Your task to perform on an android device: change notifications settings Image 0: 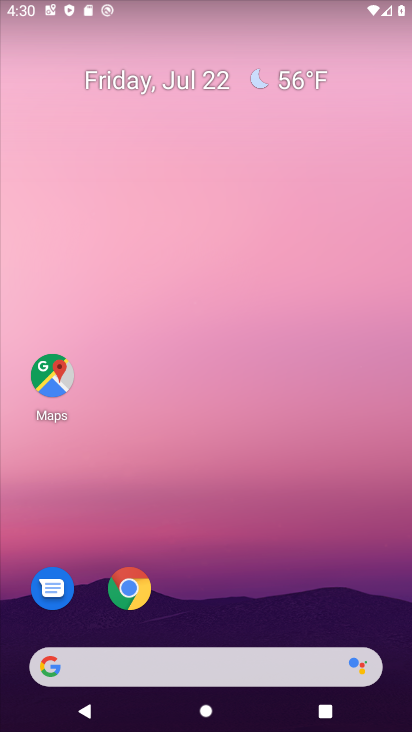
Step 0: drag from (216, 609) to (233, 195)
Your task to perform on an android device: change notifications settings Image 1: 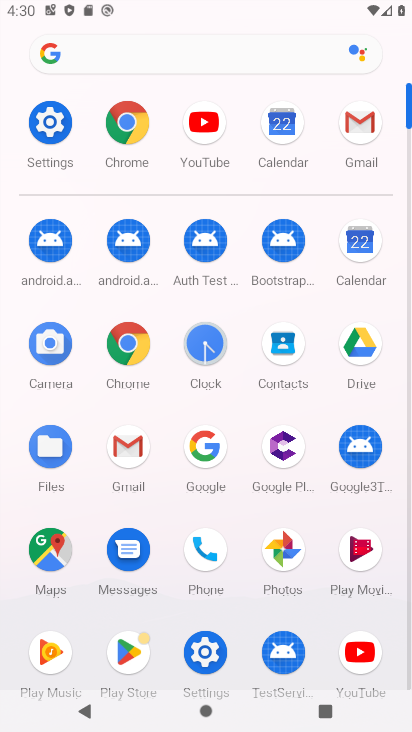
Step 1: click (57, 119)
Your task to perform on an android device: change notifications settings Image 2: 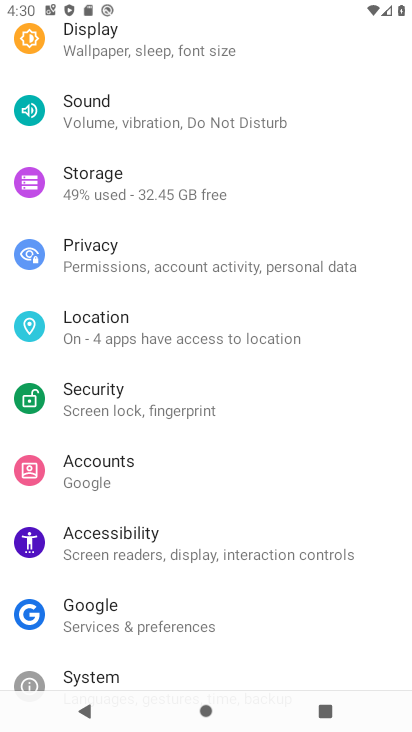
Step 2: drag from (194, 225) to (199, 423)
Your task to perform on an android device: change notifications settings Image 3: 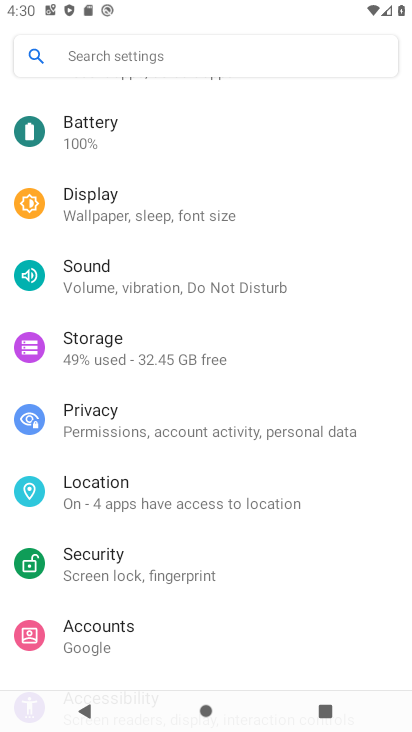
Step 3: drag from (199, 185) to (209, 395)
Your task to perform on an android device: change notifications settings Image 4: 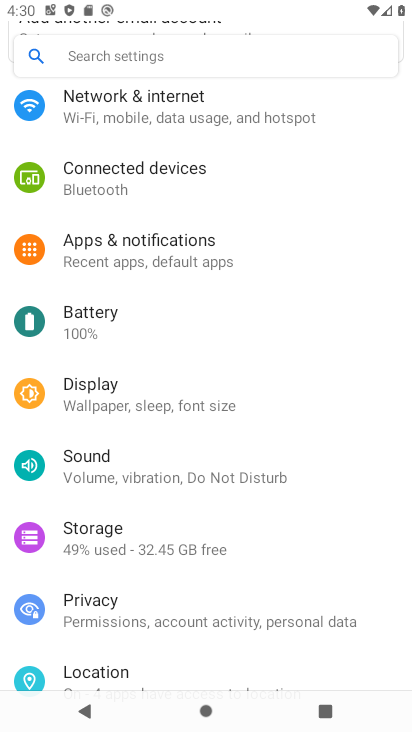
Step 4: click (190, 265)
Your task to perform on an android device: change notifications settings Image 5: 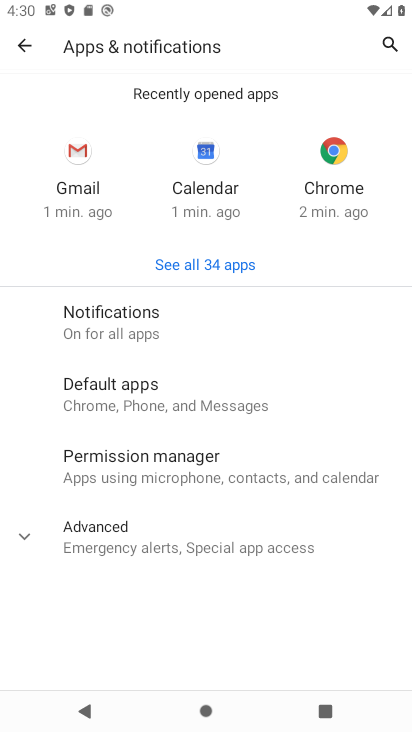
Step 5: click (213, 320)
Your task to perform on an android device: change notifications settings Image 6: 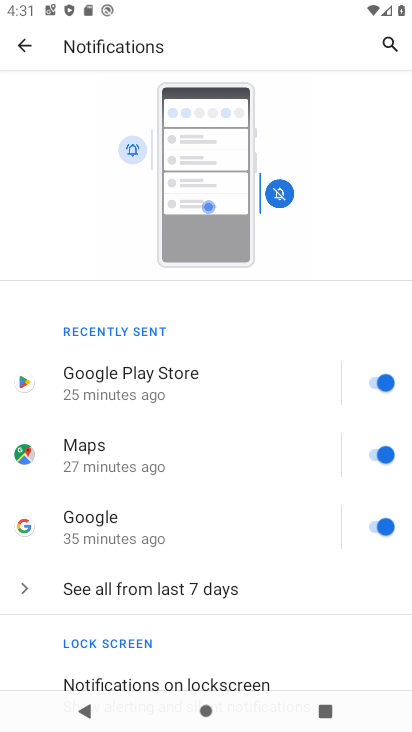
Step 6: drag from (164, 650) to (195, 303)
Your task to perform on an android device: change notifications settings Image 7: 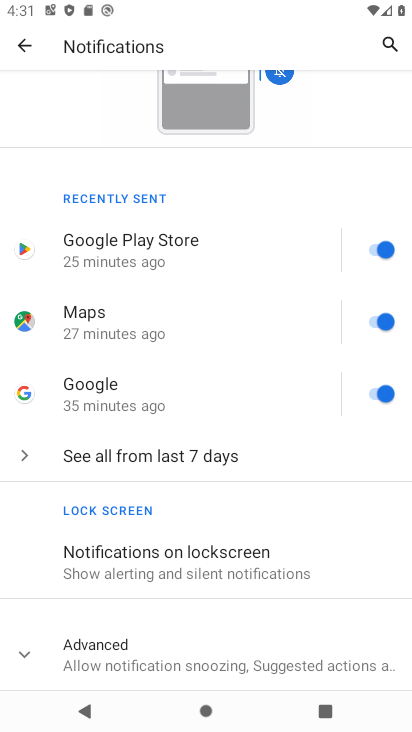
Step 7: click (238, 586)
Your task to perform on an android device: change notifications settings Image 8: 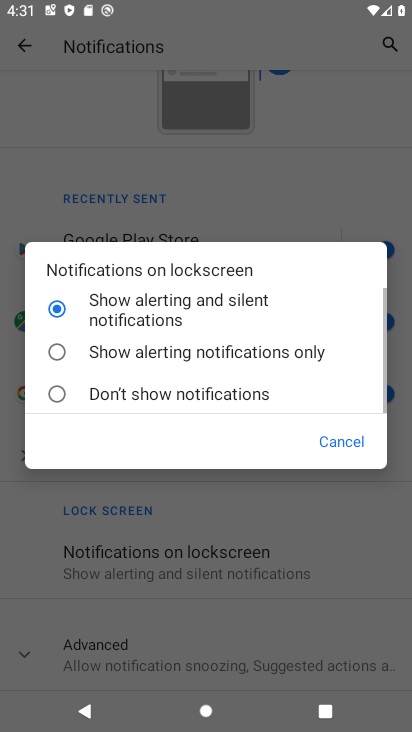
Step 8: click (203, 392)
Your task to perform on an android device: change notifications settings Image 9: 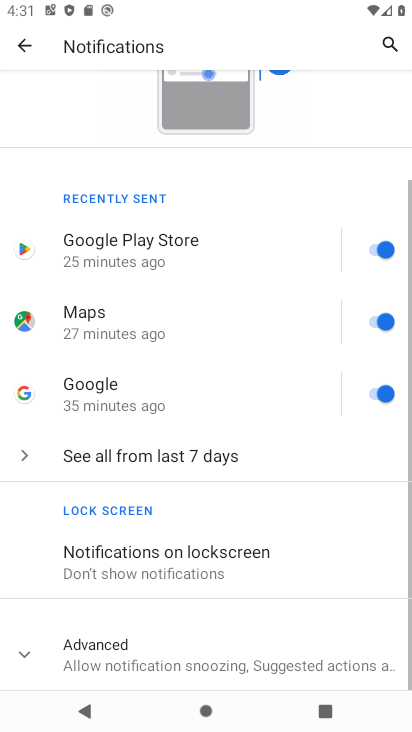
Step 9: task complete